Your task to perform on an android device: refresh tabs in the chrome app Image 0: 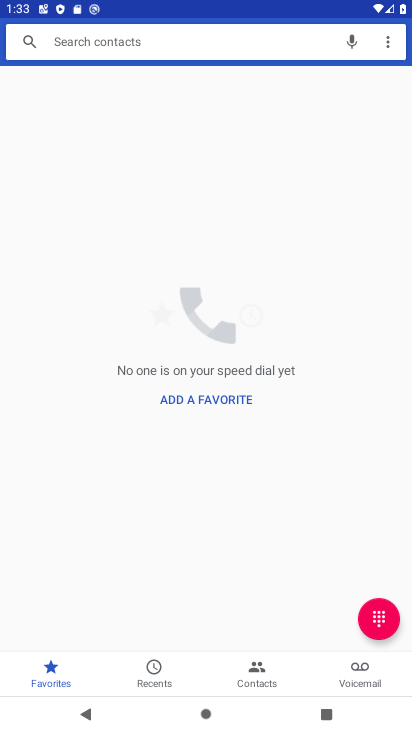
Step 0: task complete